Your task to perform on an android device: star an email in the gmail app Image 0: 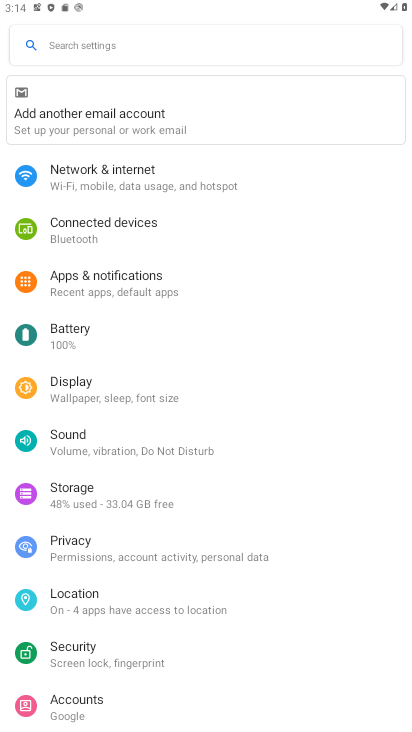
Step 0: press back button
Your task to perform on an android device: star an email in the gmail app Image 1: 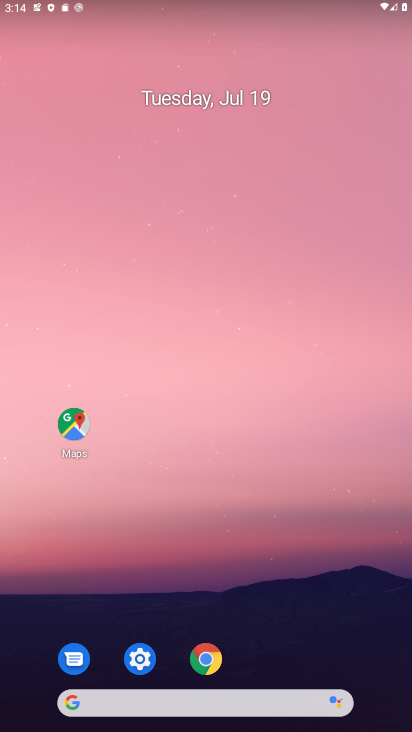
Step 1: drag from (207, 471) to (232, 199)
Your task to perform on an android device: star an email in the gmail app Image 2: 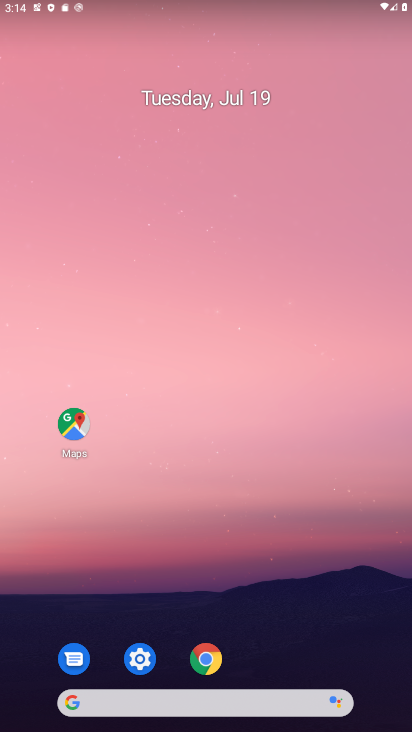
Step 2: drag from (221, 514) to (220, 209)
Your task to perform on an android device: star an email in the gmail app Image 3: 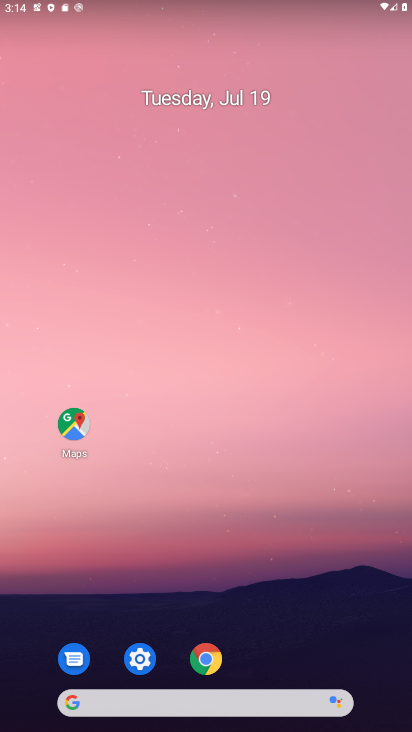
Step 3: drag from (264, 631) to (138, 290)
Your task to perform on an android device: star an email in the gmail app Image 4: 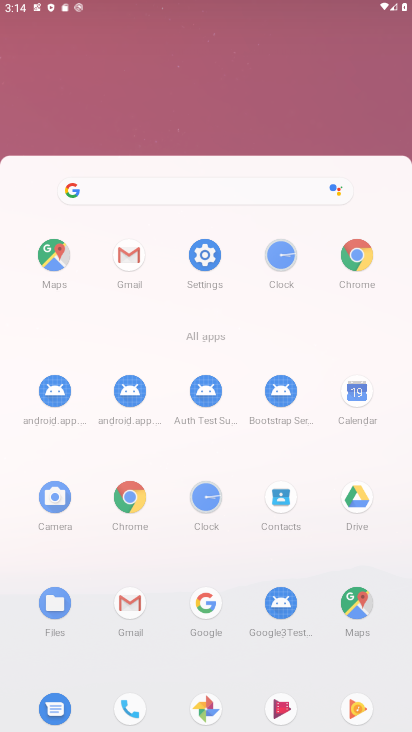
Step 4: drag from (265, 684) to (81, 104)
Your task to perform on an android device: star an email in the gmail app Image 5: 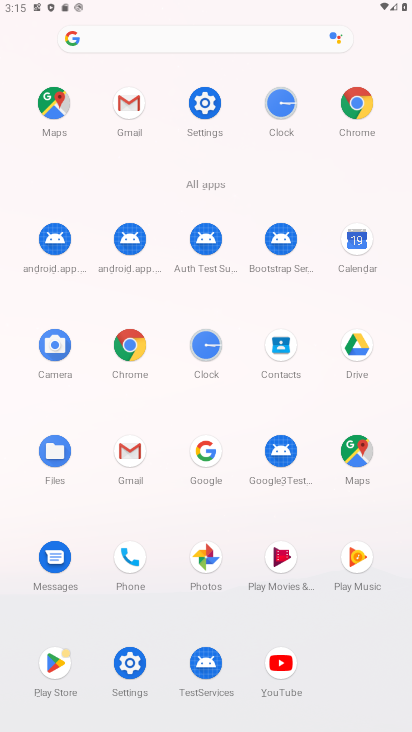
Step 5: click (121, 443)
Your task to perform on an android device: star an email in the gmail app Image 6: 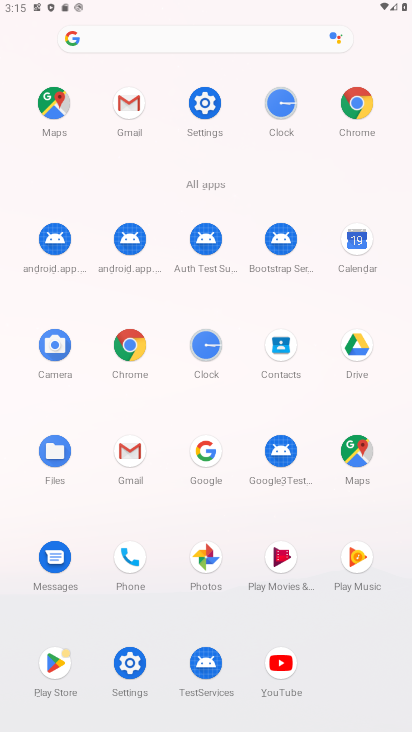
Step 6: click (121, 442)
Your task to perform on an android device: star an email in the gmail app Image 7: 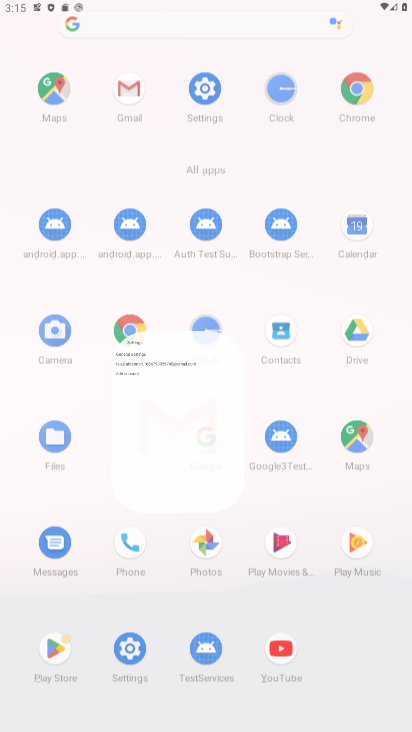
Step 7: click (130, 446)
Your task to perform on an android device: star an email in the gmail app Image 8: 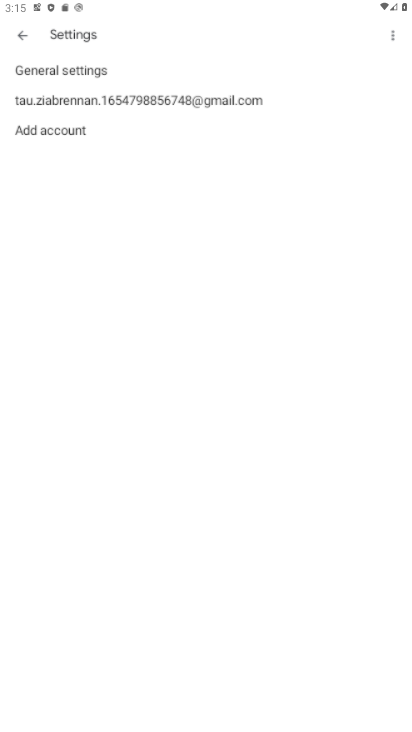
Step 8: click (135, 440)
Your task to perform on an android device: star an email in the gmail app Image 9: 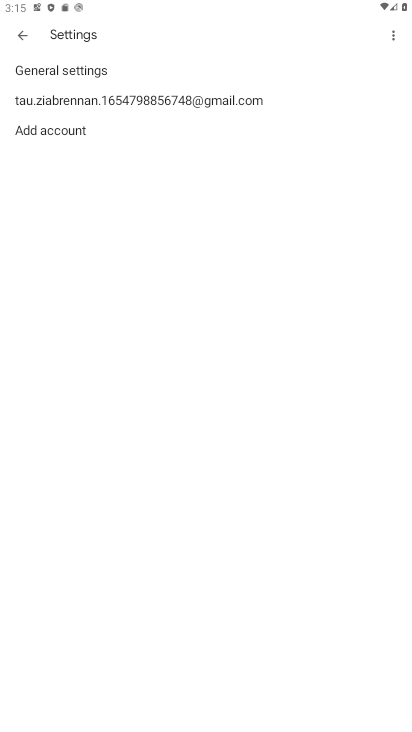
Step 9: click (121, 100)
Your task to perform on an android device: star an email in the gmail app Image 10: 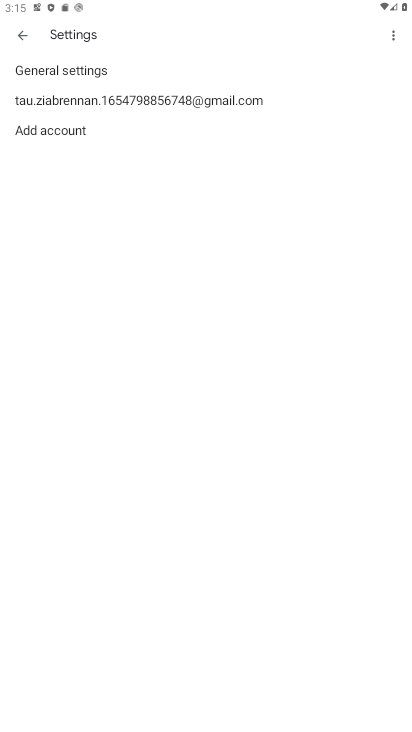
Step 10: click (136, 103)
Your task to perform on an android device: star an email in the gmail app Image 11: 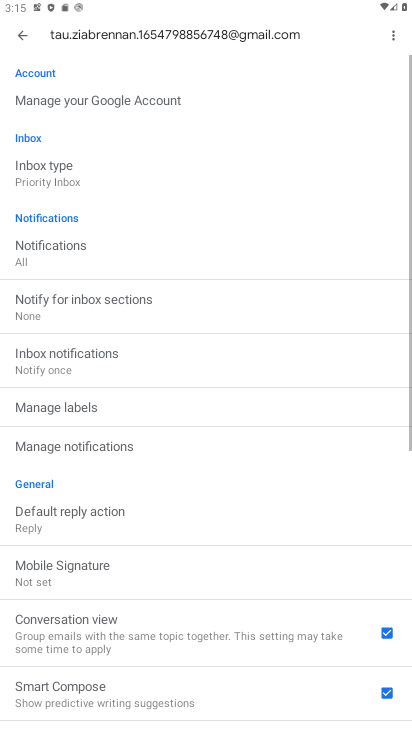
Step 11: click (135, 106)
Your task to perform on an android device: star an email in the gmail app Image 12: 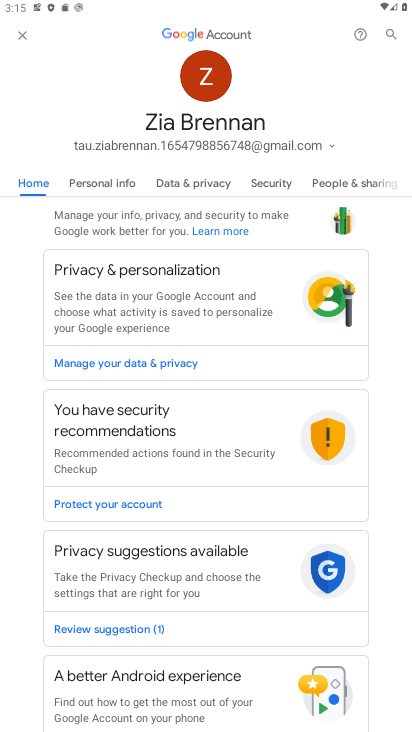
Step 12: click (23, 39)
Your task to perform on an android device: star an email in the gmail app Image 13: 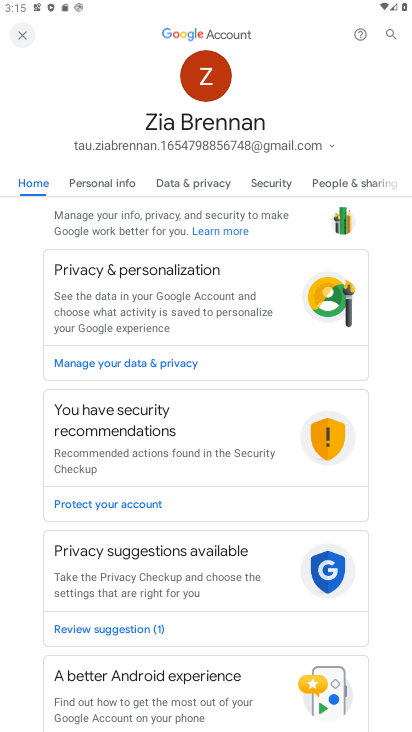
Step 13: click (4, 6)
Your task to perform on an android device: star an email in the gmail app Image 14: 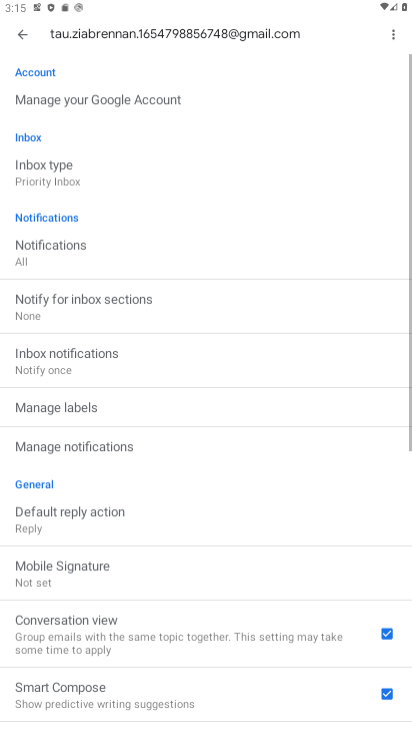
Step 14: click (4, 6)
Your task to perform on an android device: star an email in the gmail app Image 15: 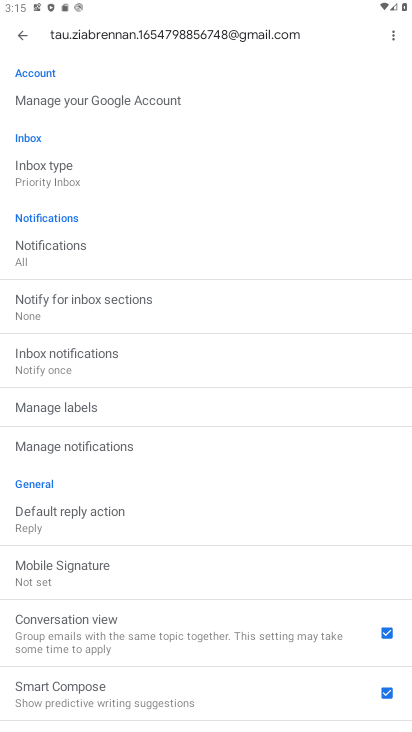
Step 15: drag from (99, 572) to (67, 217)
Your task to perform on an android device: star an email in the gmail app Image 16: 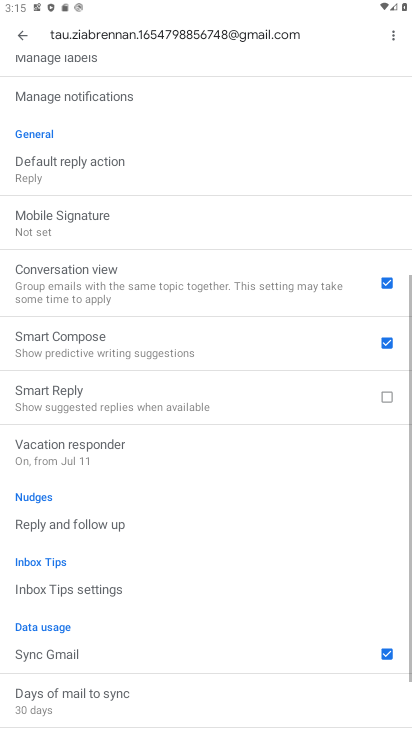
Step 16: drag from (66, 491) to (49, 390)
Your task to perform on an android device: star an email in the gmail app Image 17: 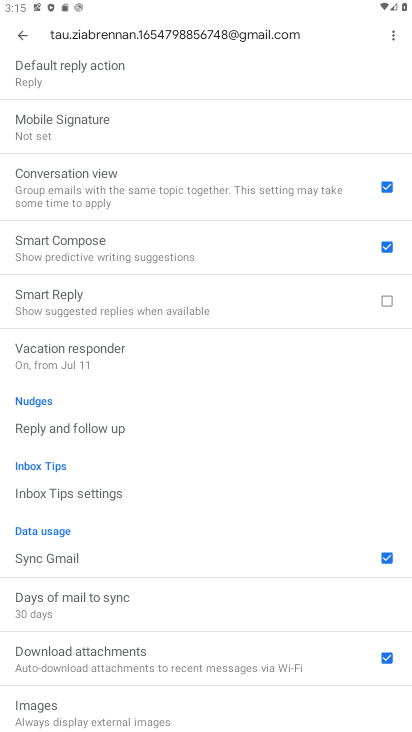
Step 17: click (20, 30)
Your task to perform on an android device: star an email in the gmail app Image 18: 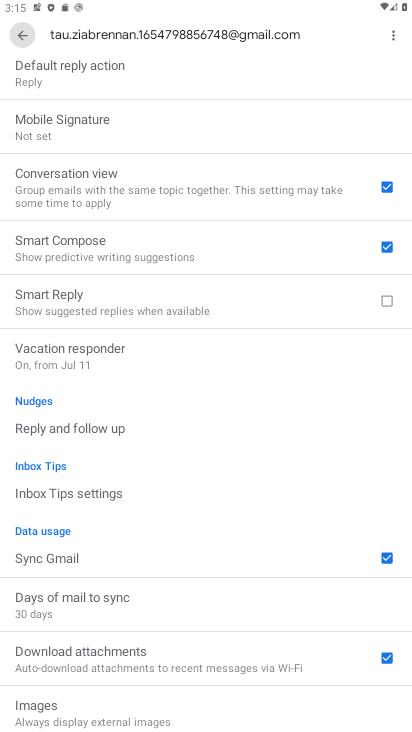
Step 18: click (15, 24)
Your task to perform on an android device: star an email in the gmail app Image 19: 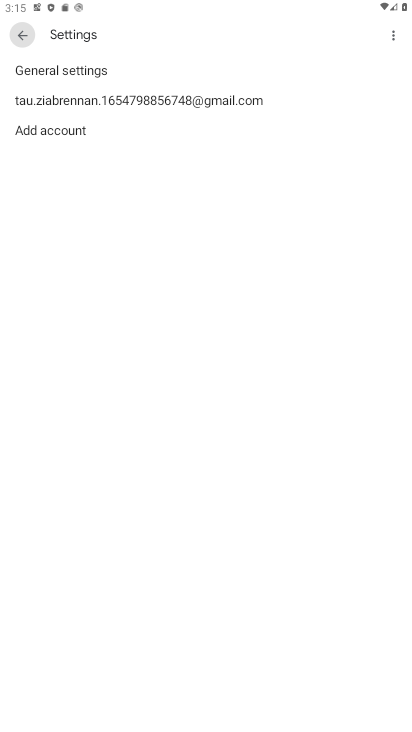
Step 19: click (15, 24)
Your task to perform on an android device: star an email in the gmail app Image 20: 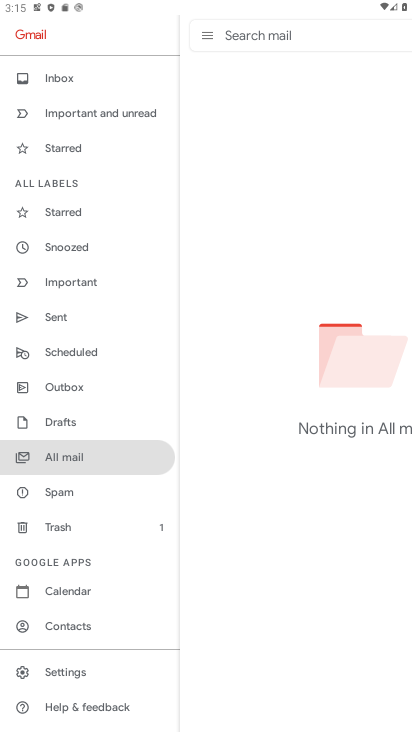
Step 20: click (86, 463)
Your task to perform on an android device: star an email in the gmail app Image 21: 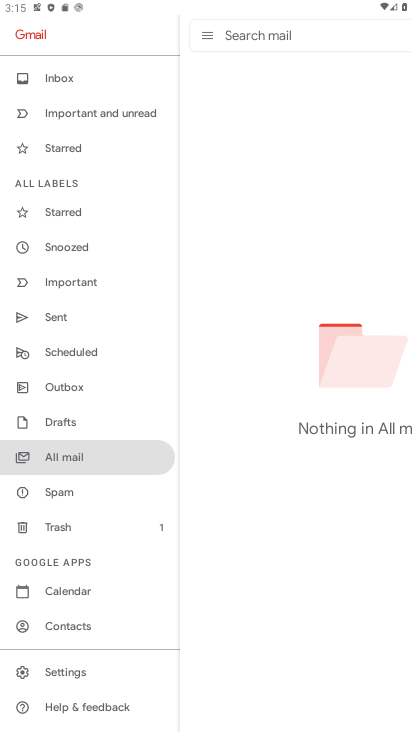
Step 21: task complete